Your task to perform on an android device: Open Yahoo.com Image 0: 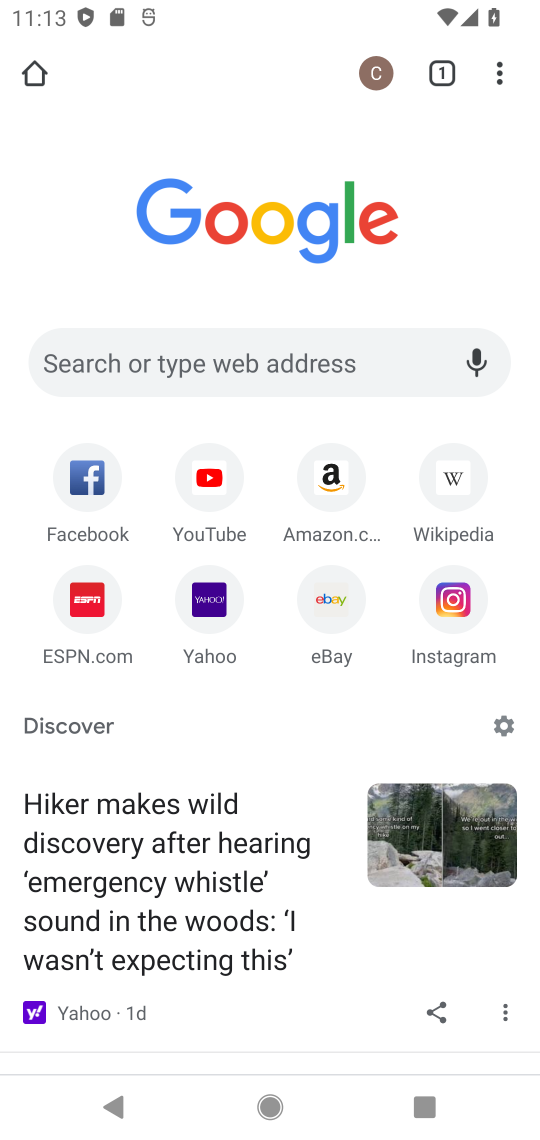
Step 0: click (161, 359)
Your task to perform on an android device: Open Yahoo.com Image 1: 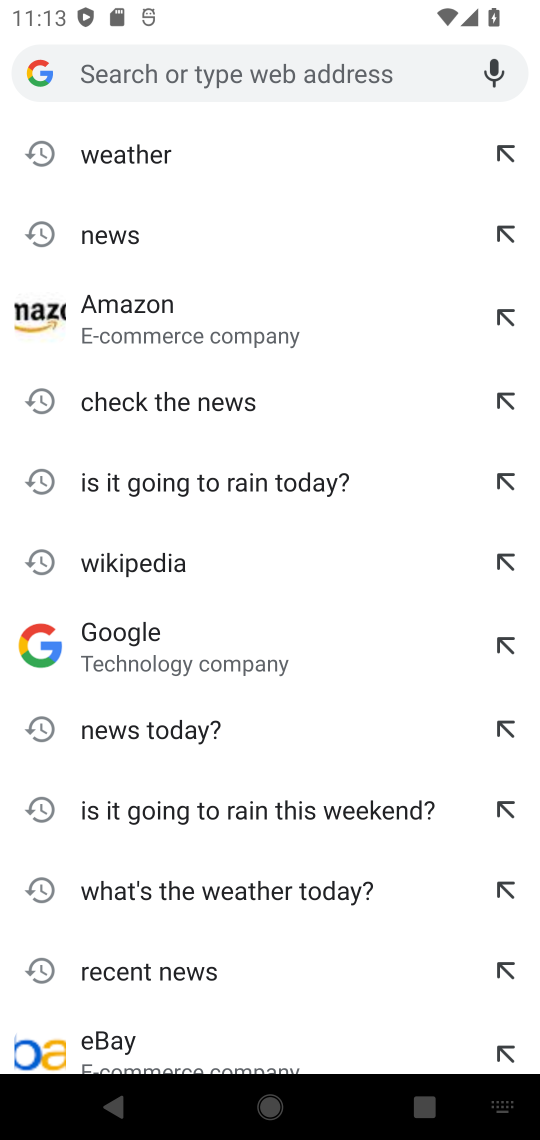
Step 1: type "Yahoo.com"
Your task to perform on an android device: Open Yahoo.com Image 2: 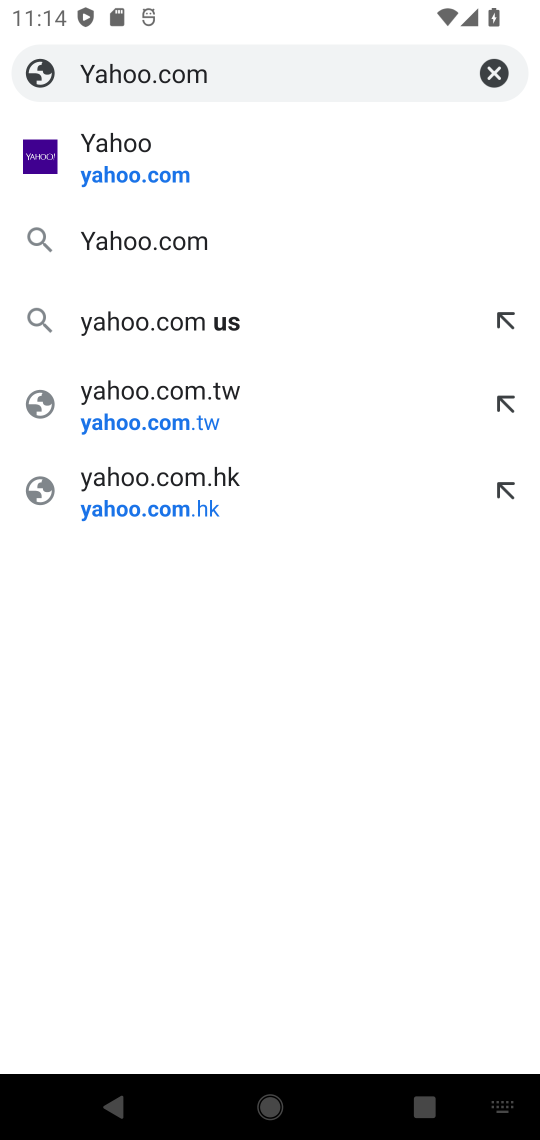
Step 2: type ""
Your task to perform on an android device: Open Yahoo.com Image 3: 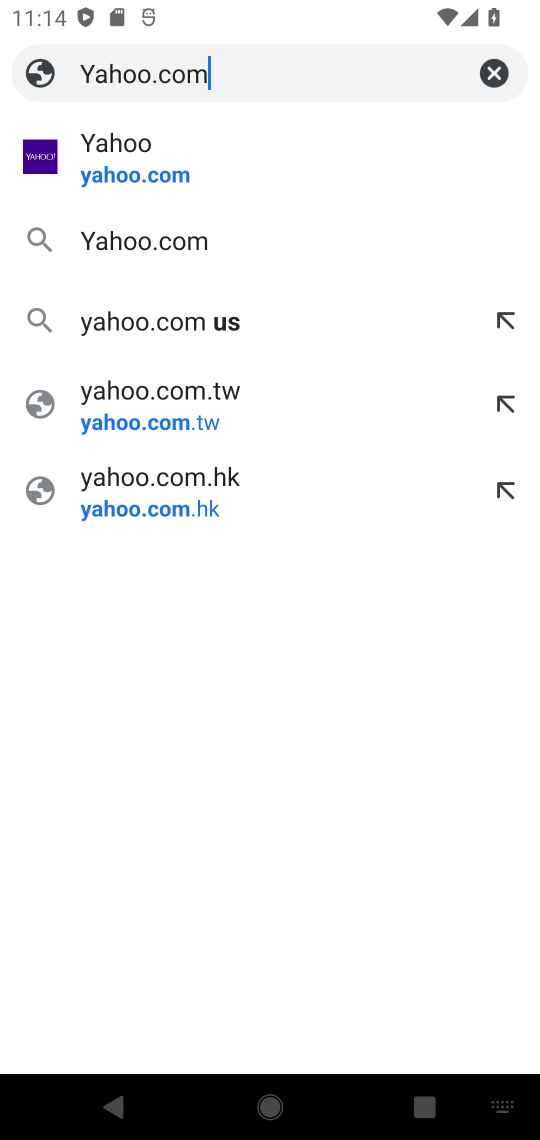
Step 3: type ""
Your task to perform on an android device: Open Yahoo.com Image 4: 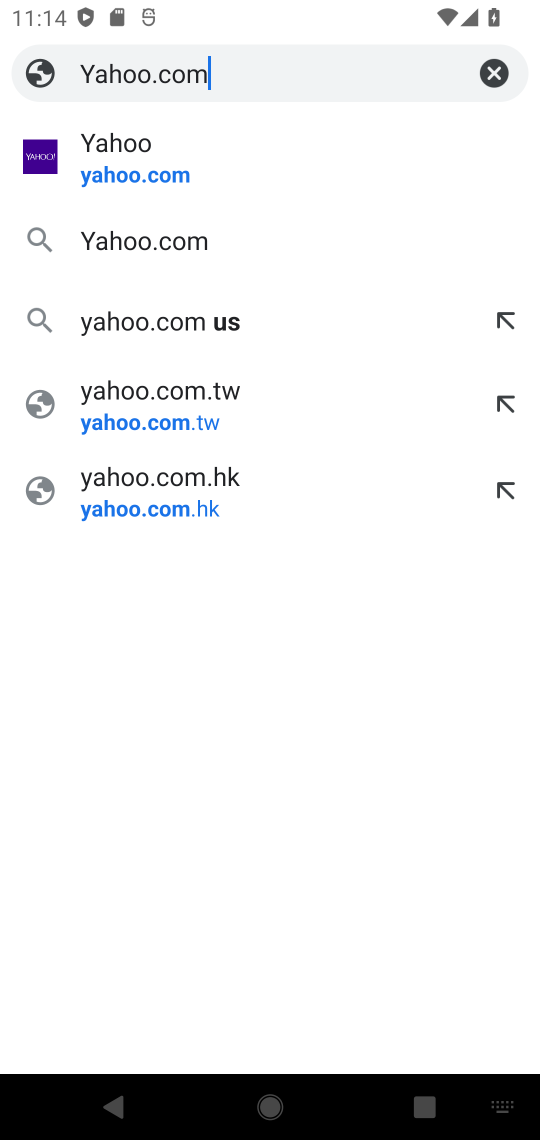
Step 4: click (127, 159)
Your task to perform on an android device: Open Yahoo.com Image 5: 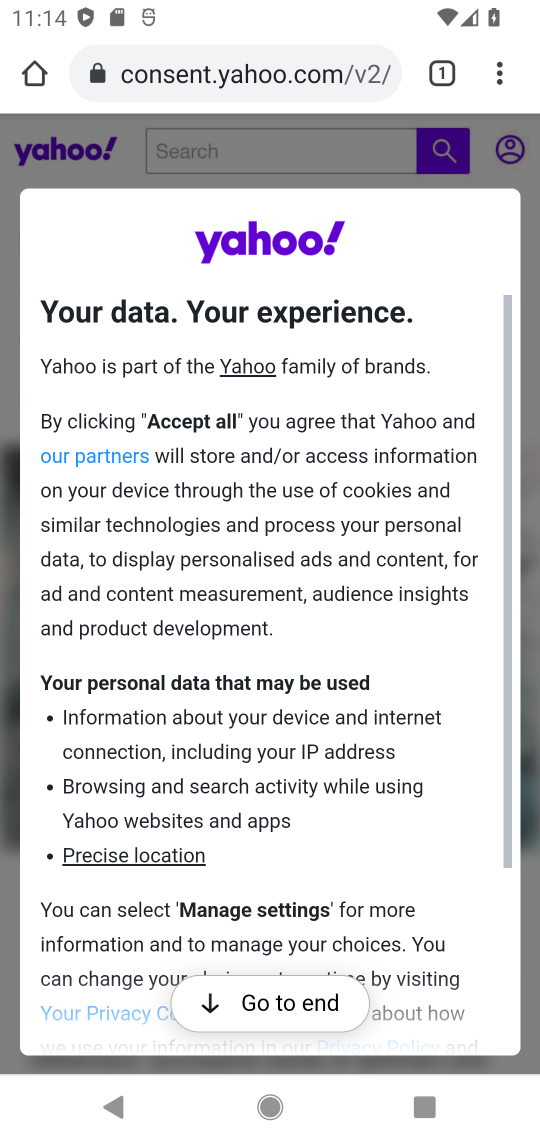
Step 5: task complete